Your task to perform on an android device: open chrome and create a bookmark for the current page Image 0: 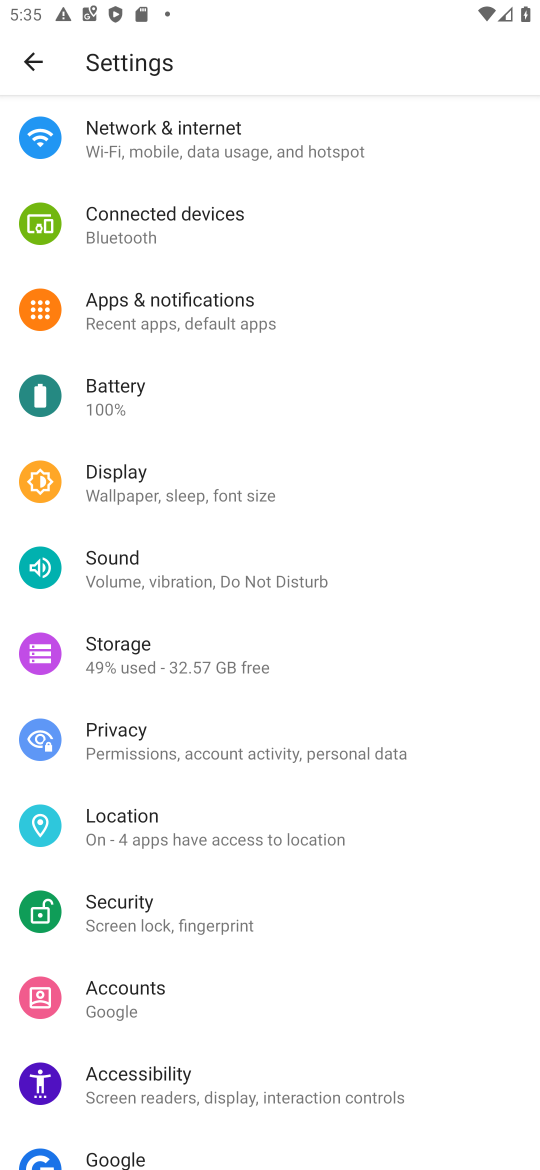
Step 0: press home button
Your task to perform on an android device: open chrome and create a bookmark for the current page Image 1: 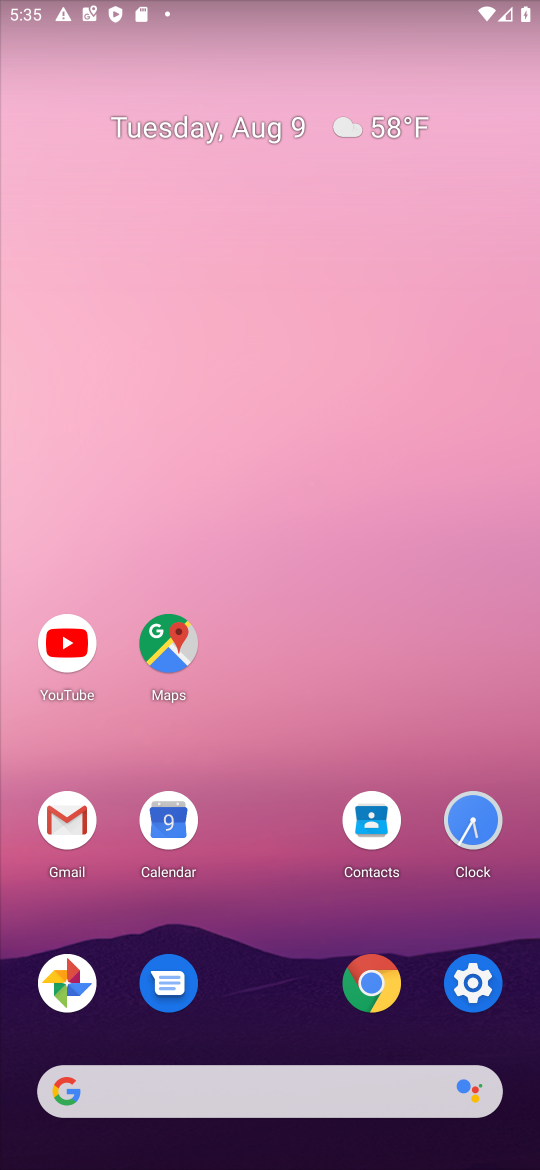
Step 1: click (376, 985)
Your task to perform on an android device: open chrome and create a bookmark for the current page Image 2: 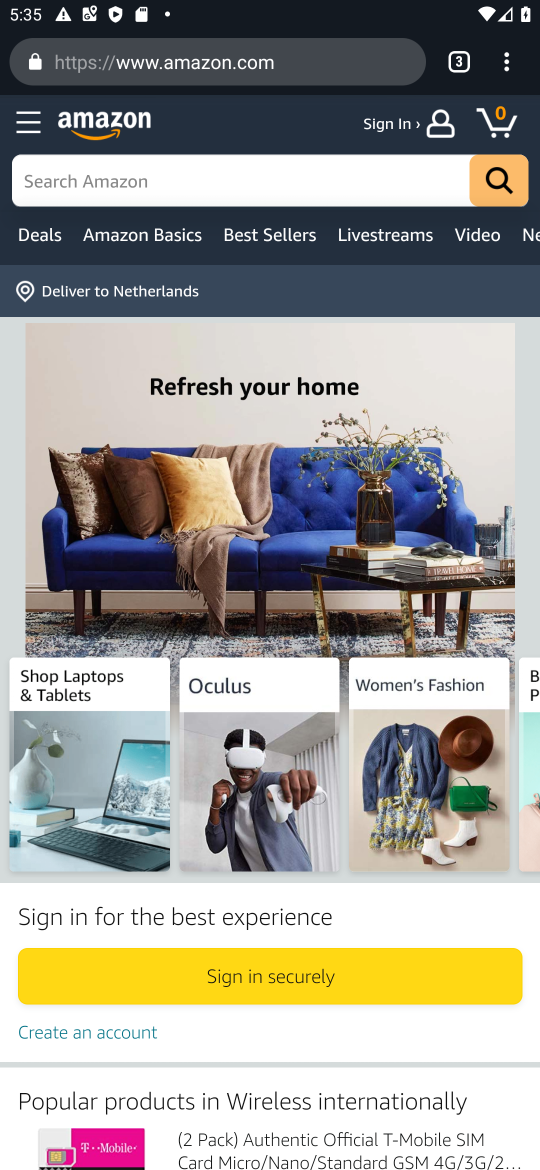
Step 2: click (516, 67)
Your task to perform on an android device: open chrome and create a bookmark for the current page Image 3: 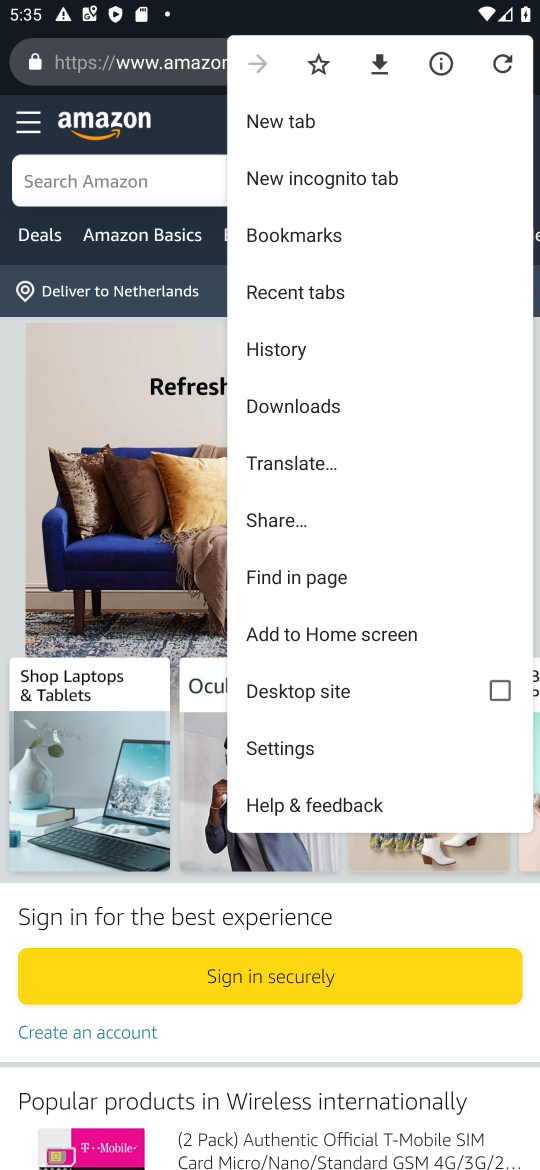
Step 3: click (322, 68)
Your task to perform on an android device: open chrome and create a bookmark for the current page Image 4: 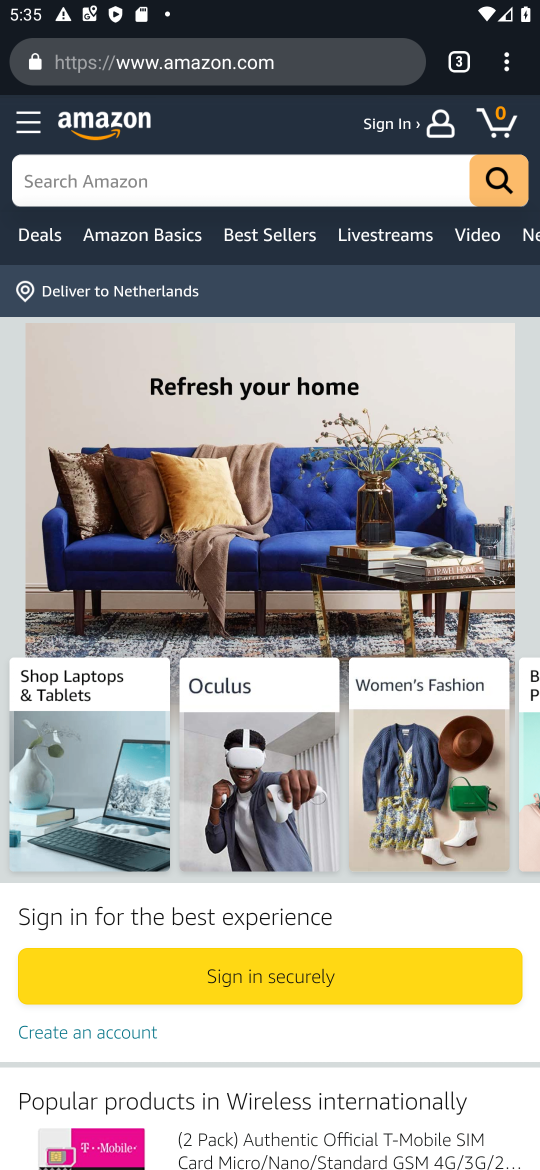
Step 4: task complete